Your task to perform on an android device: Open Wikipedia Image 0: 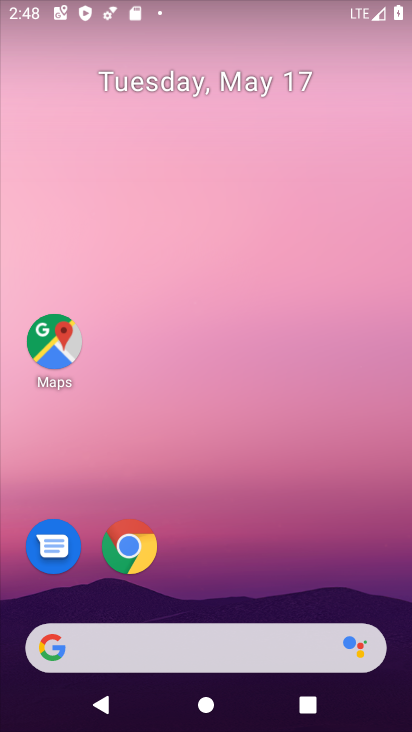
Step 0: press home button
Your task to perform on an android device: Open Wikipedia Image 1: 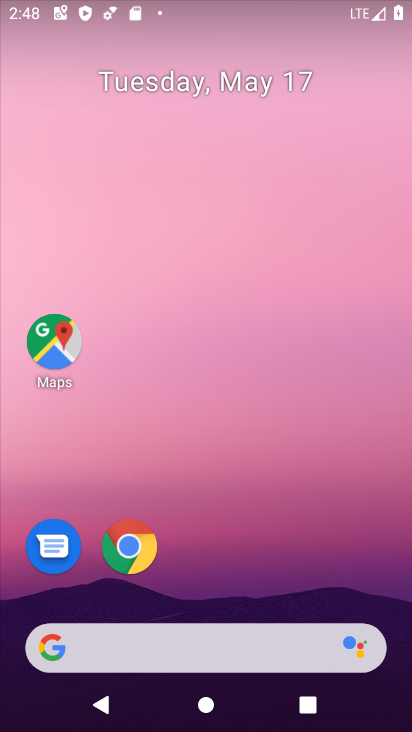
Step 1: click (153, 547)
Your task to perform on an android device: Open Wikipedia Image 2: 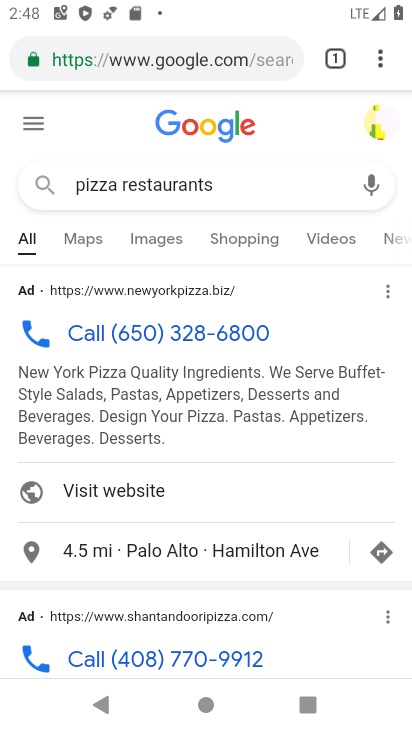
Step 2: click (238, 71)
Your task to perform on an android device: Open Wikipedia Image 3: 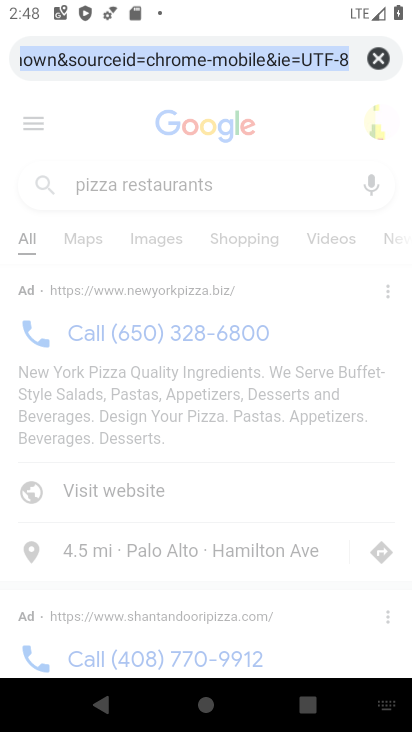
Step 3: click (370, 64)
Your task to perform on an android device: Open Wikipedia Image 4: 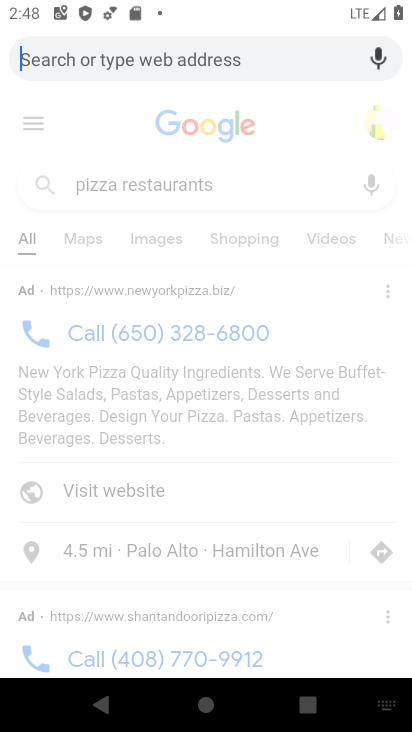
Step 4: type "Wikipedia"
Your task to perform on an android device: Open Wikipedia Image 5: 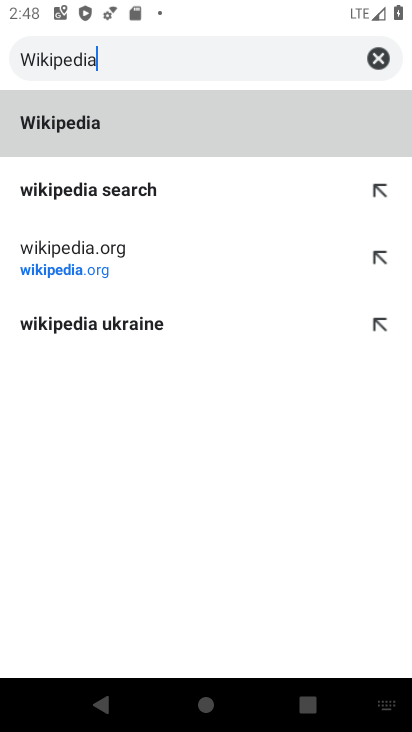
Step 5: click (97, 92)
Your task to perform on an android device: Open Wikipedia Image 6: 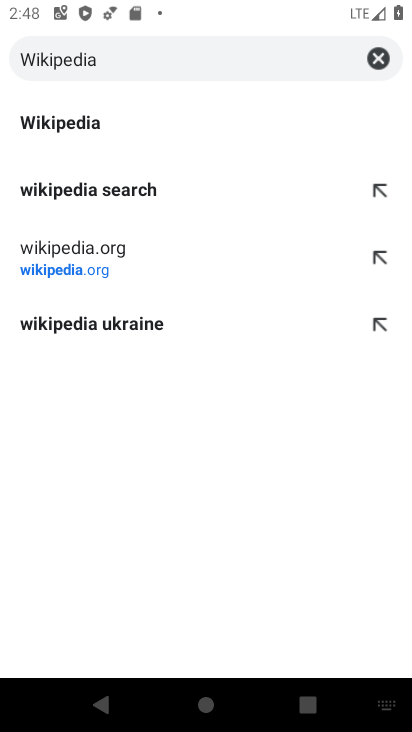
Step 6: click (105, 260)
Your task to perform on an android device: Open Wikipedia Image 7: 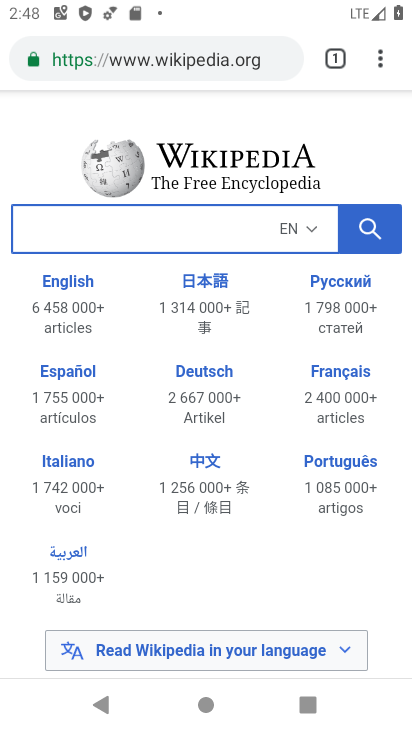
Step 7: task complete